Your task to perform on an android device: check out phone information Image 0: 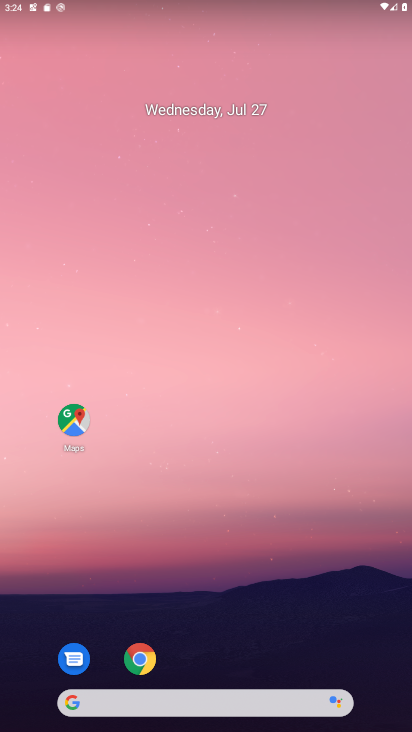
Step 0: drag from (234, 624) to (336, 172)
Your task to perform on an android device: check out phone information Image 1: 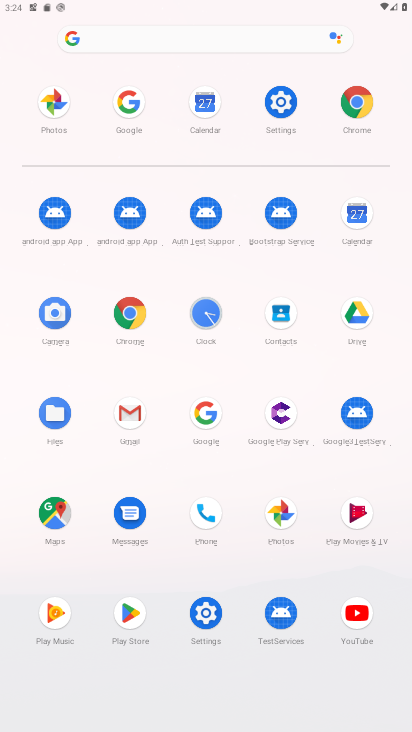
Step 1: click (297, 107)
Your task to perform on an android device: check out phone information Image 2: 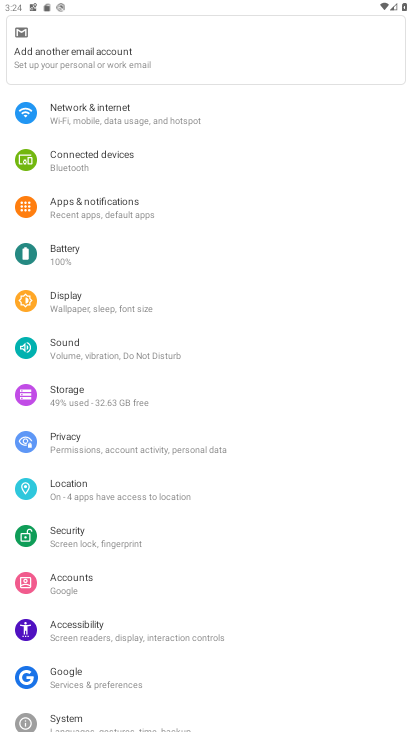
Step 2: drag from (140, 617) to (161, 213)
Your task to perform on an android device: check out phone information Image 3: 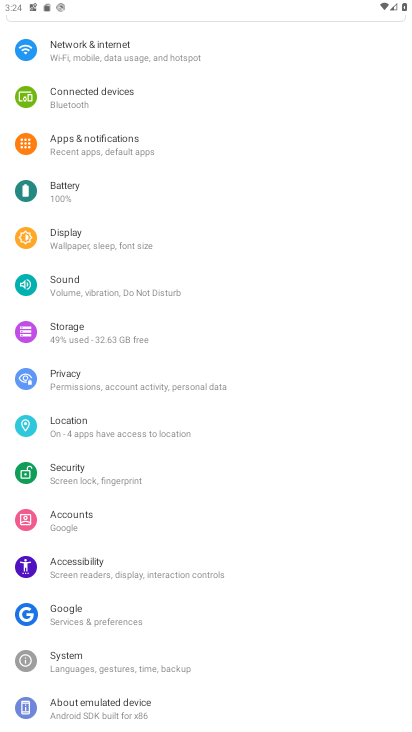
Step 3: click (121, 721)
Your task to perform on an android device: check out phone information Image 4: 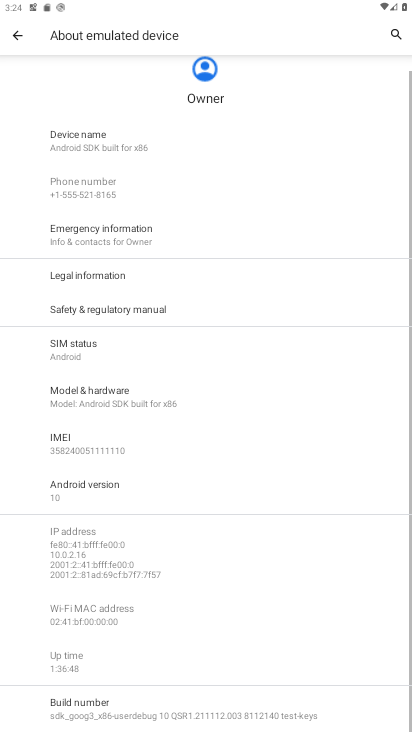
Step 4: task complete